Your task to perform on an android device: Show me productivity apps on the Play Store Image 0: 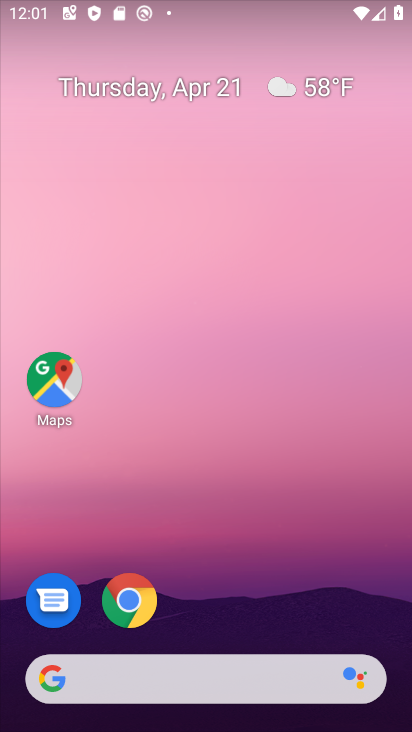
Step 0: drag from (209, 609) to (229, 0)
Your task to perform on an android device: Show me productivity apps on the Play Store Image 1: 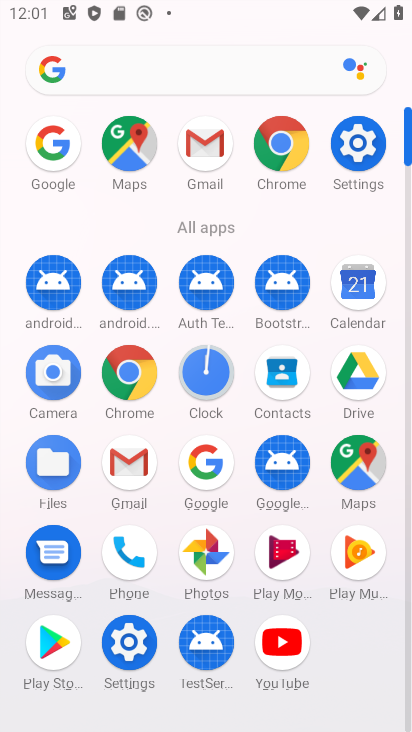
Step 1: click (40, 657)
Your task to perform on an android device: Show me productivity apps on the Play Store Image 2: 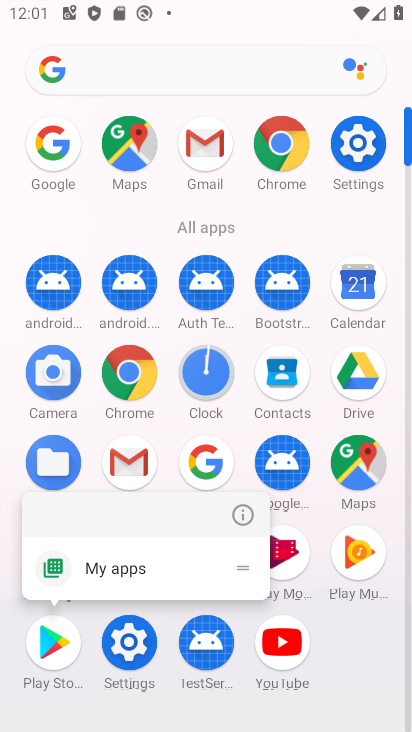
Step 2: click (54, 655)
Your task to perform on an android device: Show me productivity apps on the Play Store Image 3: 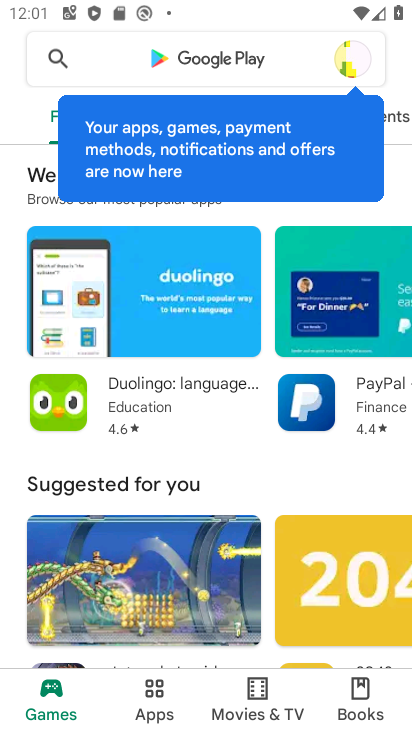
Step 3: click (153, 691)
Your task to perform on an android device: Show me productivity apps on the Play Store Image 4: 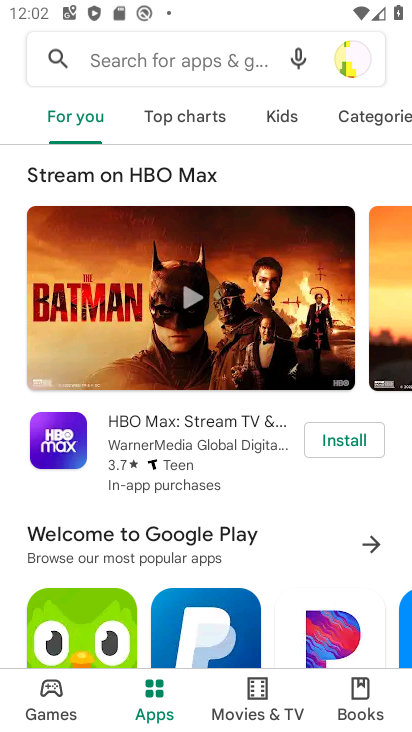
Step 4: click (386, 109)
Your task to perform on an android device: Show me productivity apps on the Play Store Image 5: 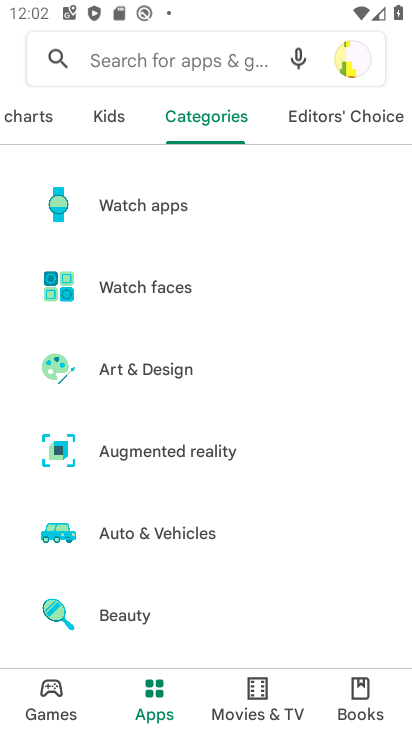
Step 5: drag from (259, 515) to (214, 125)
Your task to perform on an android device: Show me productivity apps on the Play Store Image 6: 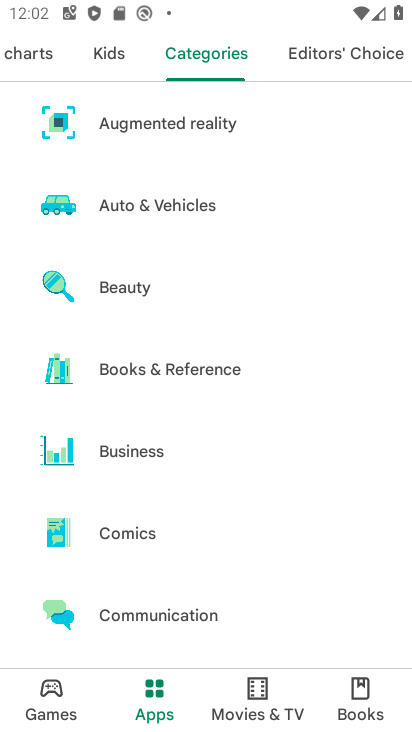
Step 6: drag from (222, 525) to (219, 96)
Your task to perform on an android device: Show me productivity apps on the Play Store Image 7: 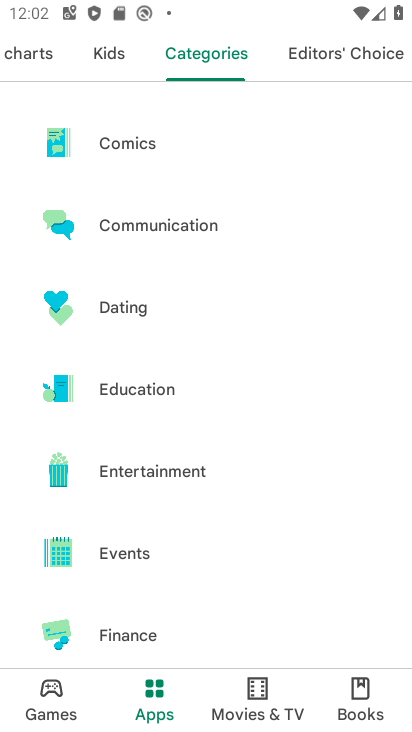
Step 7: drag from (169, 581) to (169, 20)
Your task to perform on an android device: Show me productivity apps on the Play Store Image 8: 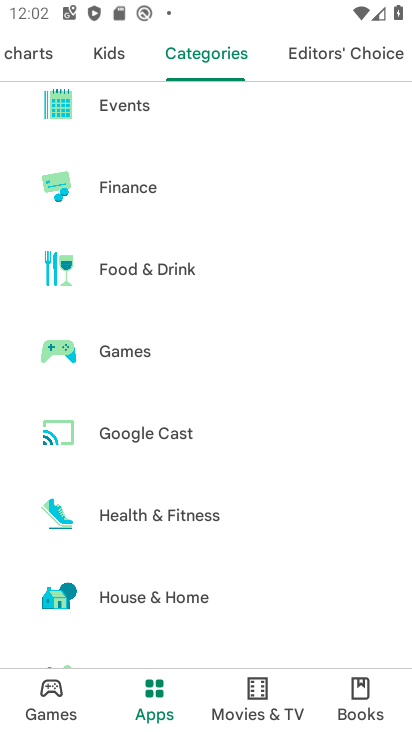
Step 8: drag from (194, 506) to (156, 104)
Your task to perform on an android device: Show me productivity apps on the Play Store Image 9: 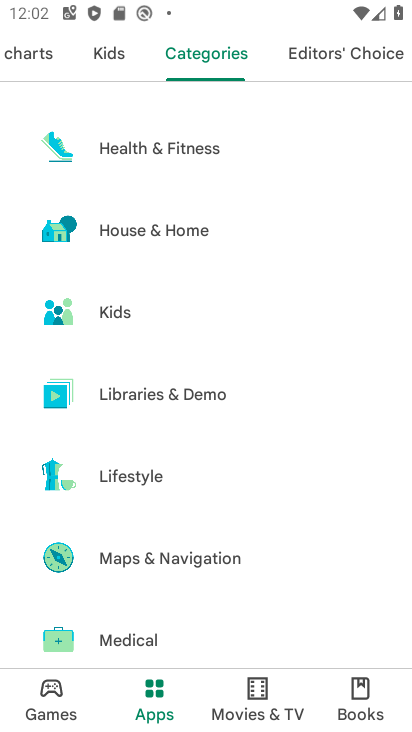
Step 9: drag from (183, 543) to (141, 41)
Your task to perform on an android device: Show me productivity apps on the Play Store Image 10: 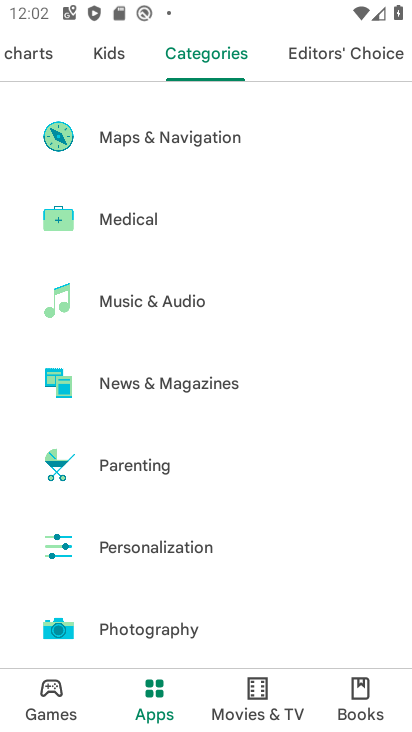
Step 10: drag from (162, 628) to (111, 173)
Your task to perform on an android device: Show me productivity apps on the Play Store Image 11: 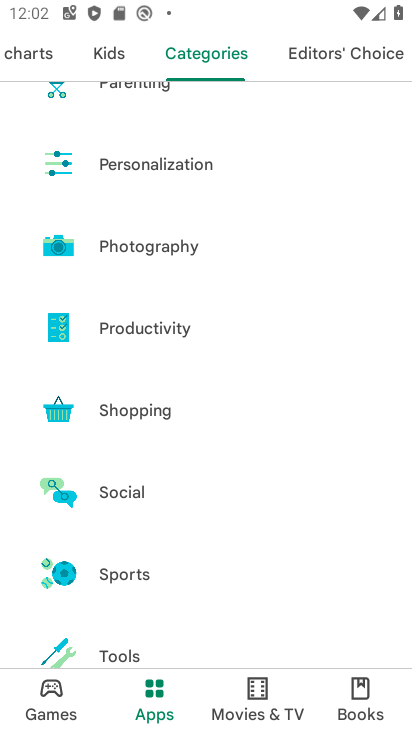
Step 11: click (139, 322)
Your task to perform on an android device: Show me productivity apps on the Play Store Image 12: 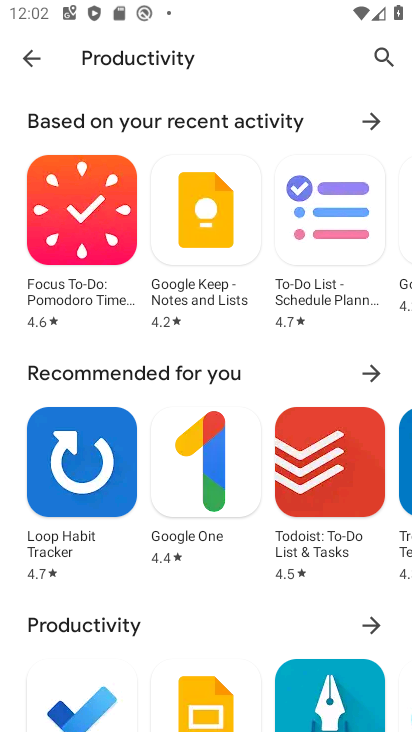
Step 12: task complete